Your task to perform on an android device: Go to battery settings Image 0: 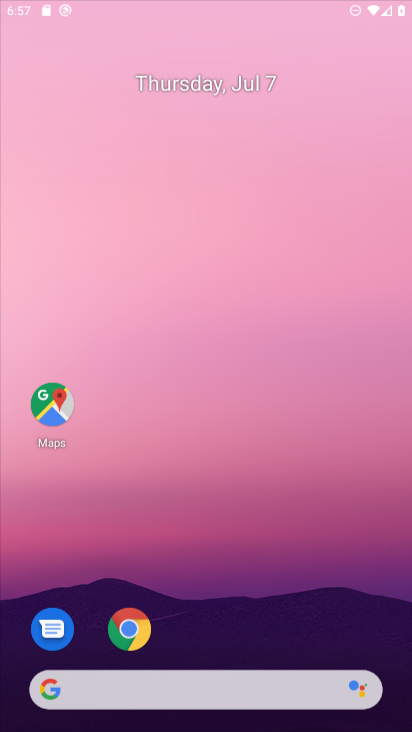
Step 0: click (167, 121)
Your task to perform on an android device: Go to battery settings Image 1: 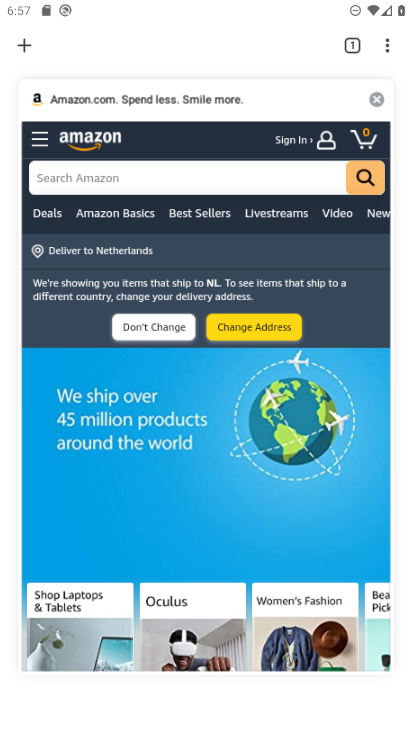
Step 1: press home button
Your task to perform on an android device: Go to battery settings Image 2: 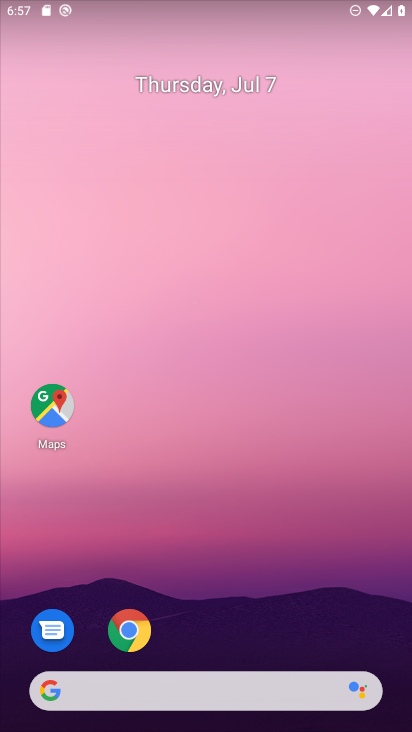
Step 2: drag from (209, 549) to (171, 223)
Your task to perform on an android device: Go to battery settings Image 3: 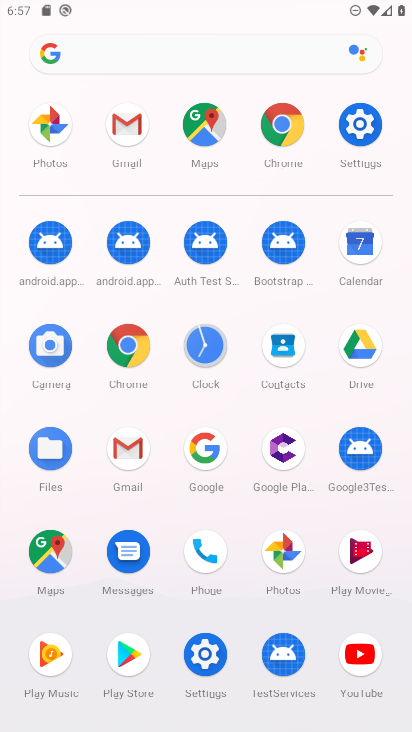
Step 3: click (361, 126)
Your task to perform on an android device: Go to battery settings Image 4: 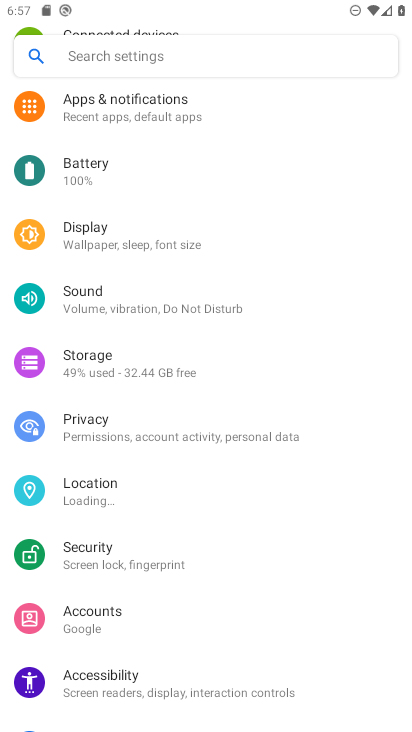
Step 4: click (82, 164)
Your task to perform on an android device: Go to battery settings Image 5: 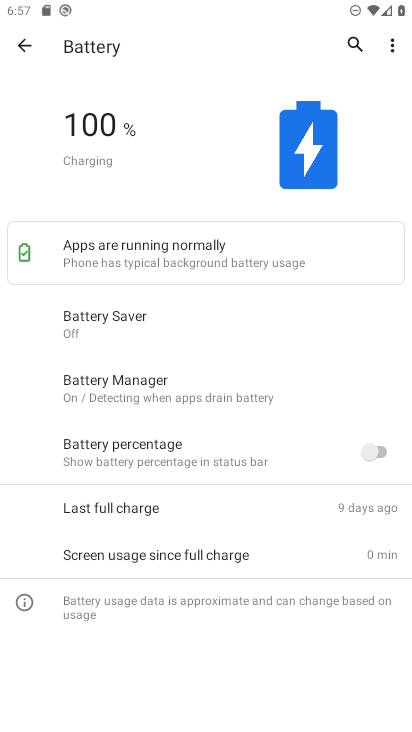
Step 5: task complete